Your task to perform on an android device: open chrome privacy settings Image 0: 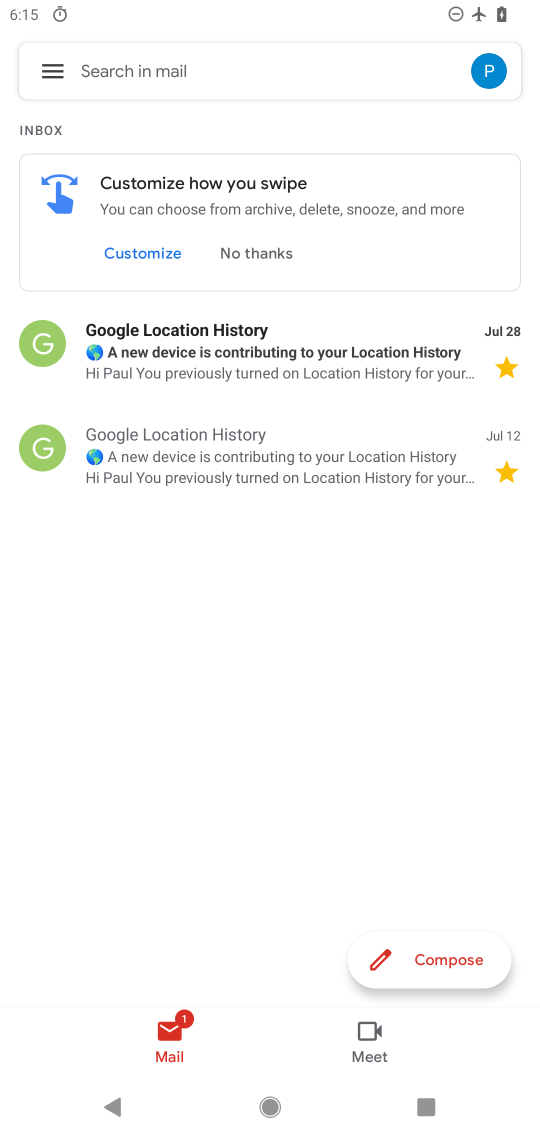
Step 0: press home button
Your task to perform on an android device: open chrome privacy settings Image 1: 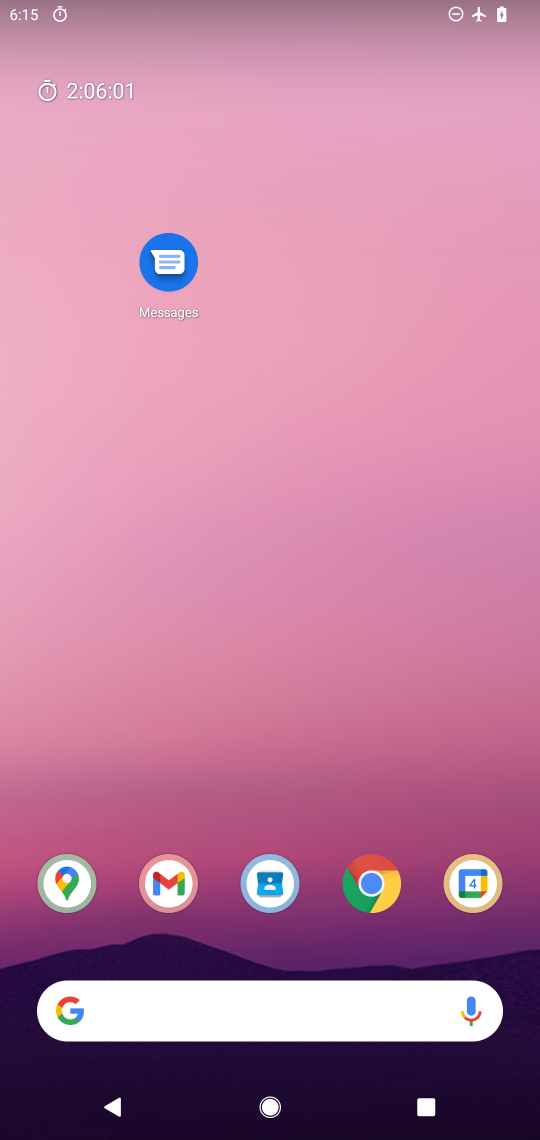
Step 1: click (369, 894)
Your task to perform on an android device: open chrome privacy settings Image 2: 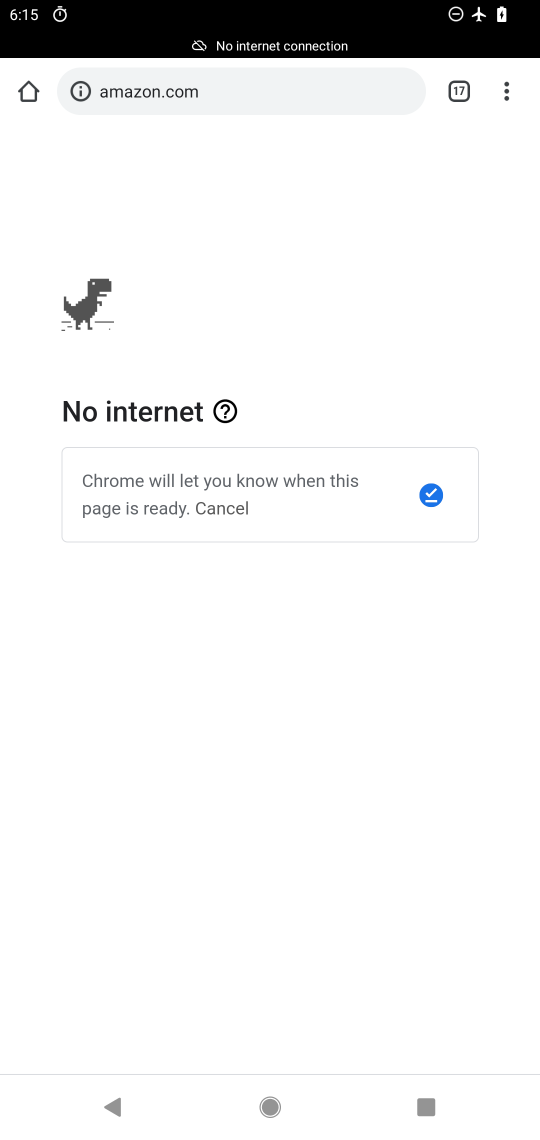
Step 2: click (506, 98)
Your task to perform on an android device: open chrome privacy settings Image 3: 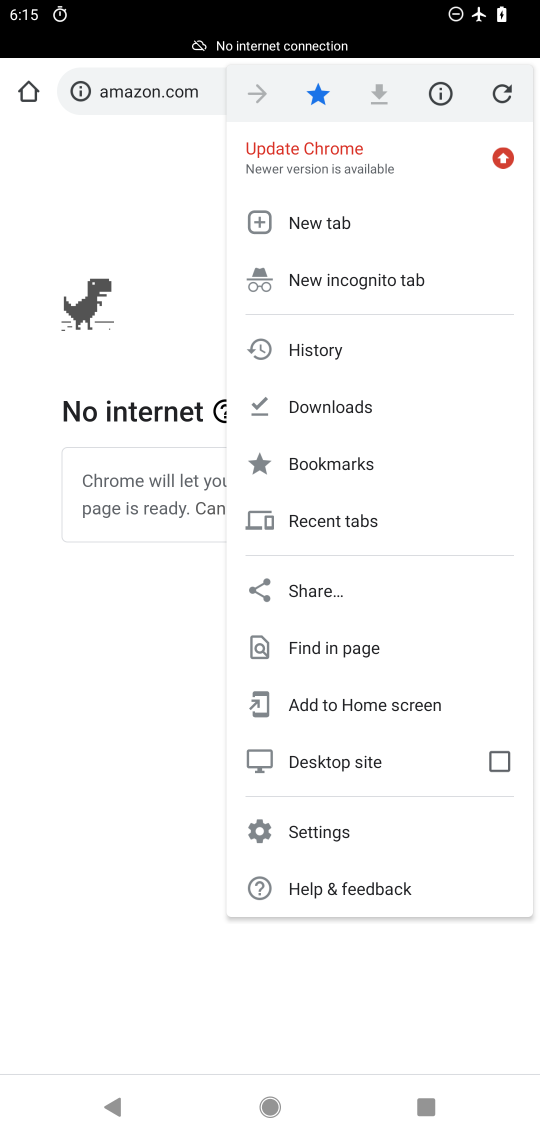
Step 3: click (316, 830)
Your task to perform on an android device: open chrome privacy settings Image 4: 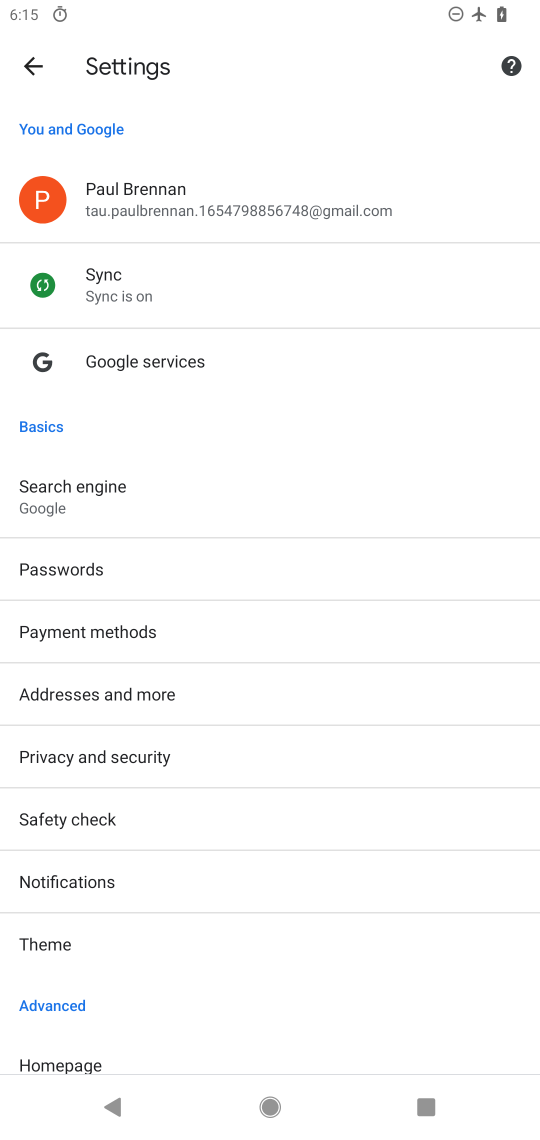
Step 4: drag from (185, 1007) to (211, 374)
Your task to perform on an android device: open chrome privacy settings Image 5: 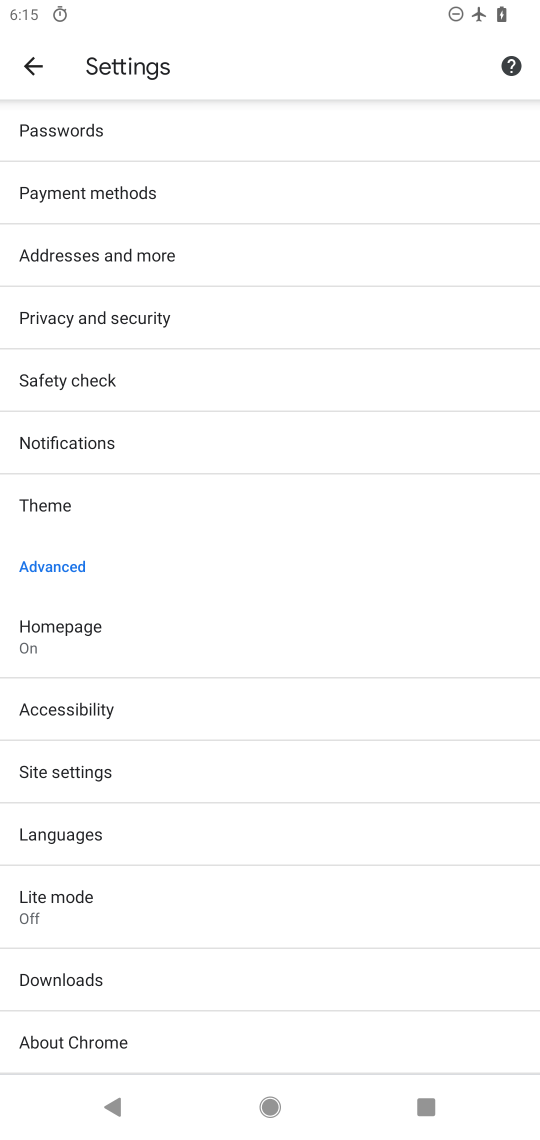
Step 5: drag from (133, 1003) to (173, 698)
Your task to perform on an android device: open chrome privacy settings Image 6: 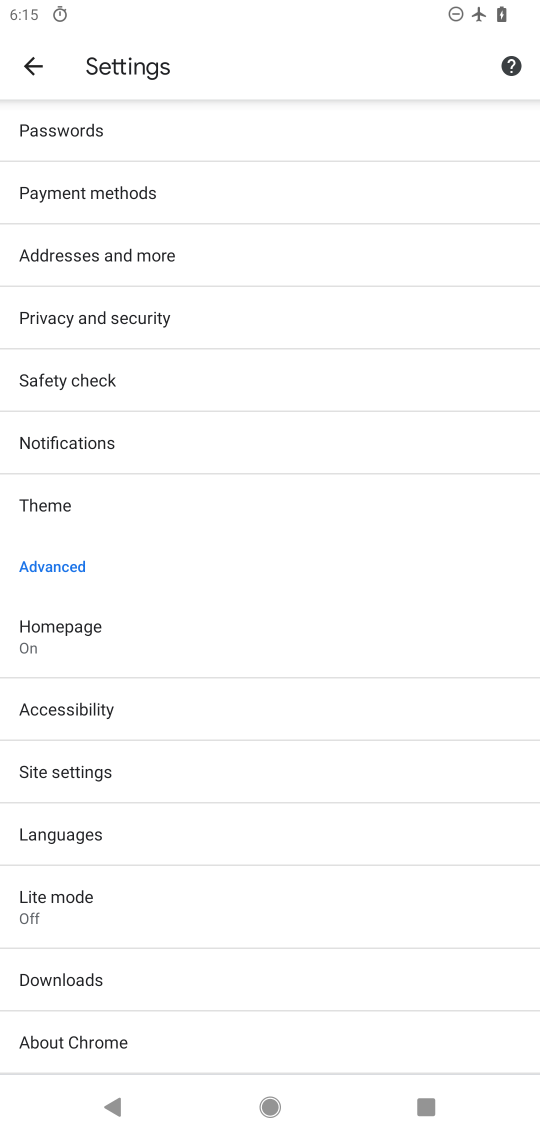
Step 6: drag from (139, 967) to (187, 445)
Your task to perform on an android device: open chrome privacy settings Image 7: 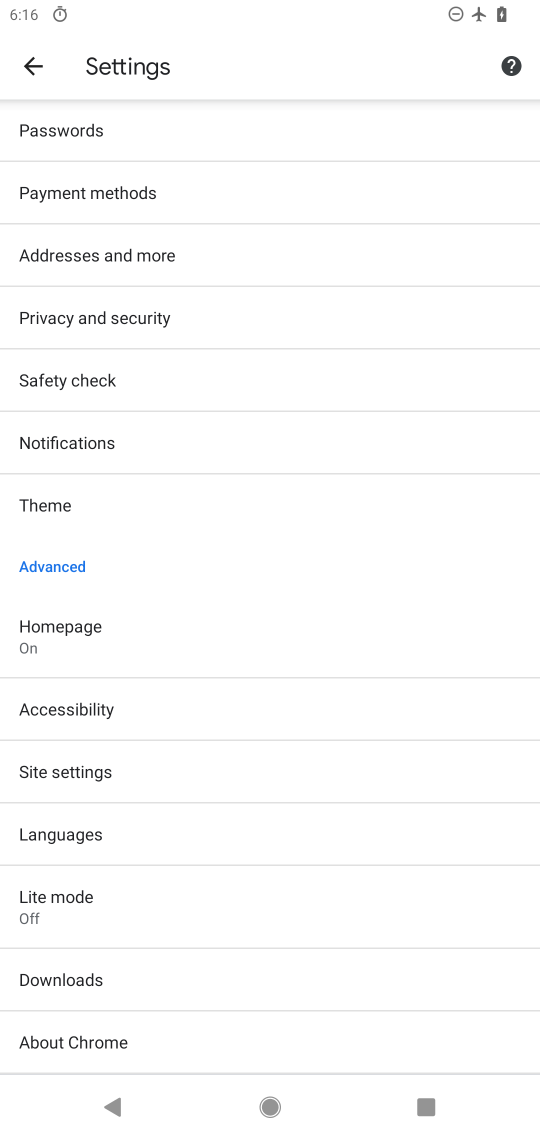
Step 7: drag from (155, 322) to (177, 601)
Your task to perform on an android device: open chrome privacy settings Image 8: 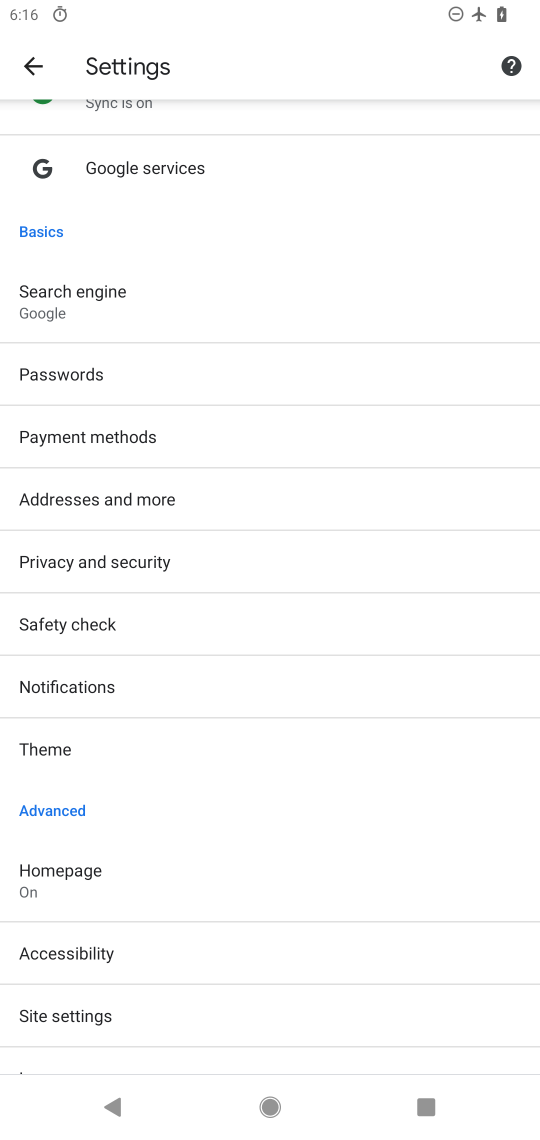
Step 8: click (78, 560)
Your task to perform on an android device: open chrome privacy settings Image 9: 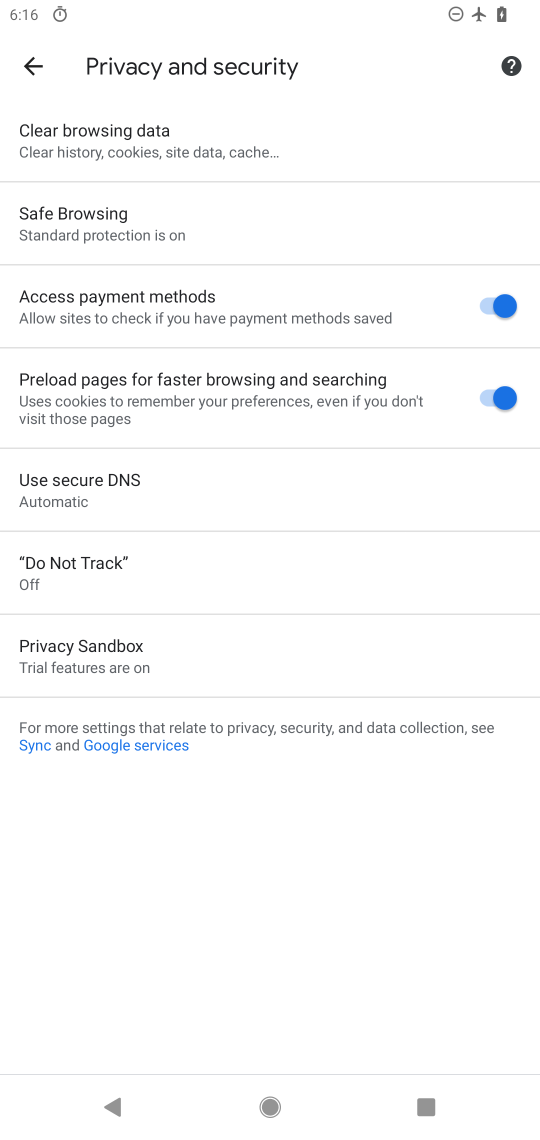
Step 9: task complete